Your task to perform on an android device: set the timer Image 0: 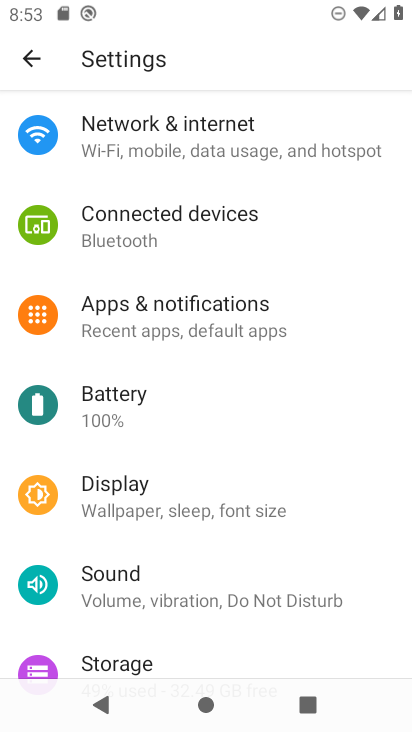
Step 0: press home button
Your task to perform on an android device: set the timer Image 1: 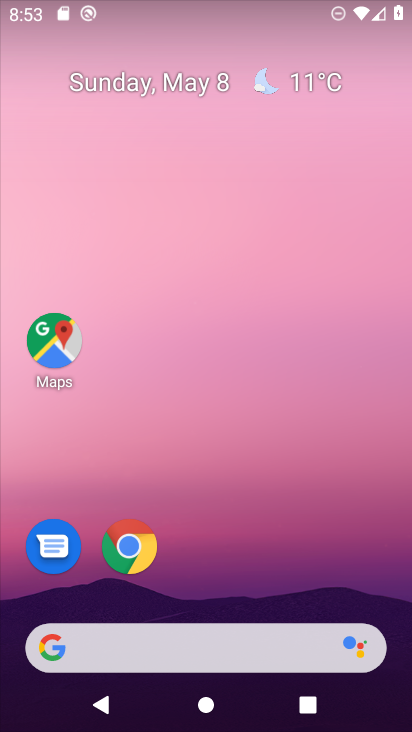
Step 1: drag from (318, 553) to (260, 0)
Your task to perform on an android device: set the timer Image 2: 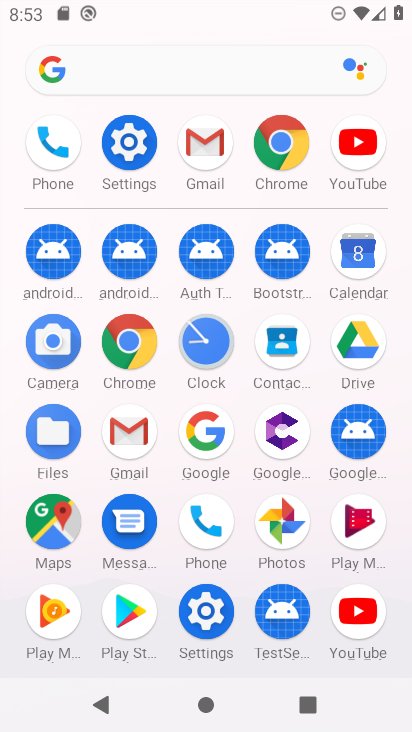
Step 2: click (202, 341)
Your task to perform on an android device: set the timer Image 3: 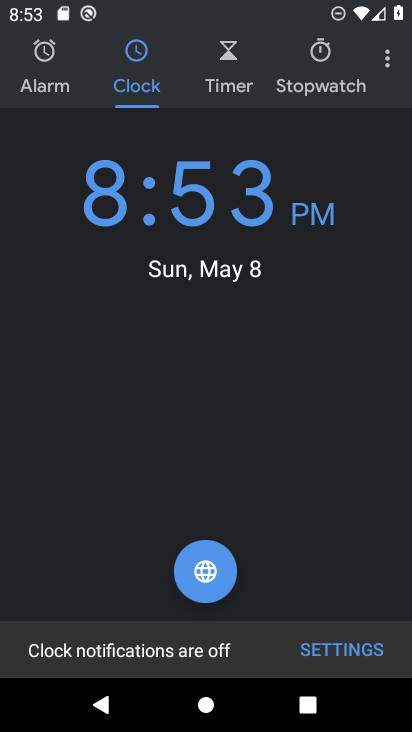
Step 3: click (230, 65)
Your task to perform on an android device: set the timer Image 4: 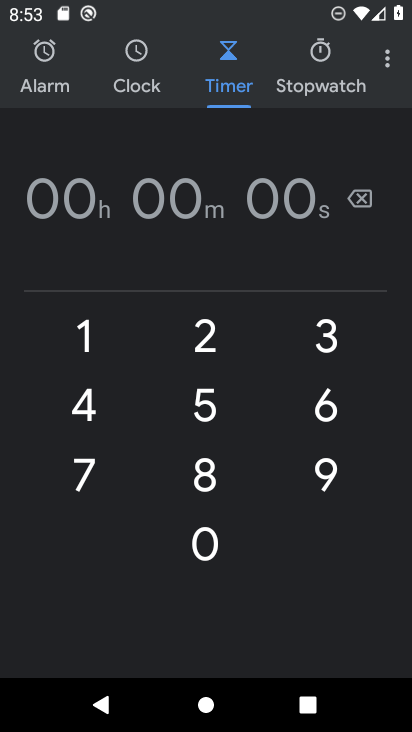
Step 4: click (87, 323)
Your task to perform on an android device: set the timer Image 5: 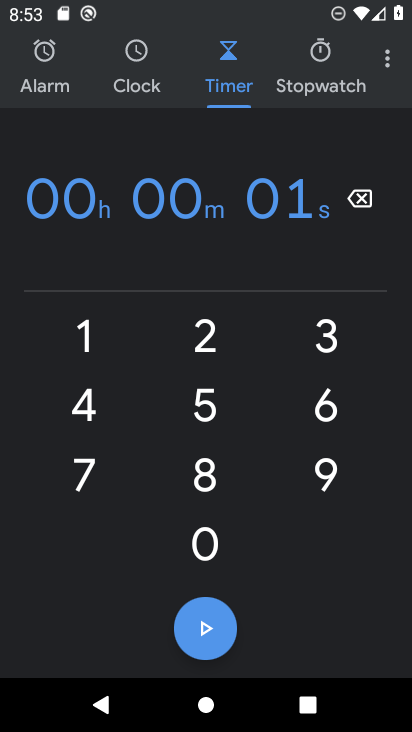
Step 5: click (83, 318)
Your task to perform on an android device: set the timer Image 6: 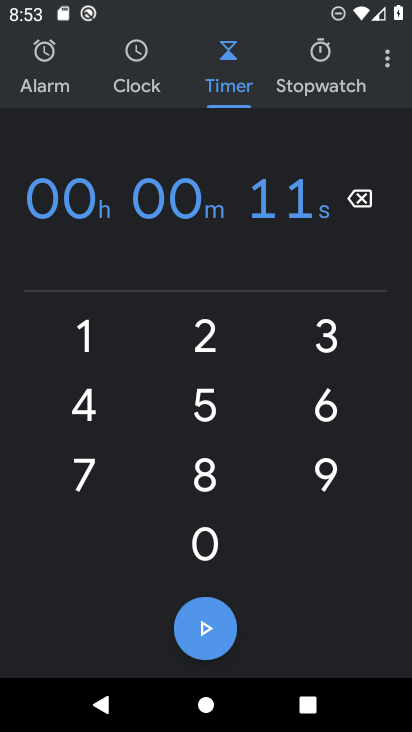
Step 6: task complete